Your task to perform on an android device: Go to Android settings Image 0: 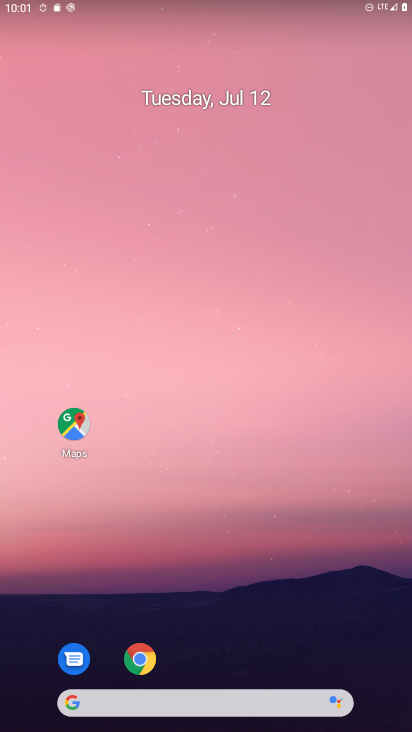
Step 0: drag from (375, 690) to (214, 46)
Your task to perform on an android device: Go to Android settings Image 1: 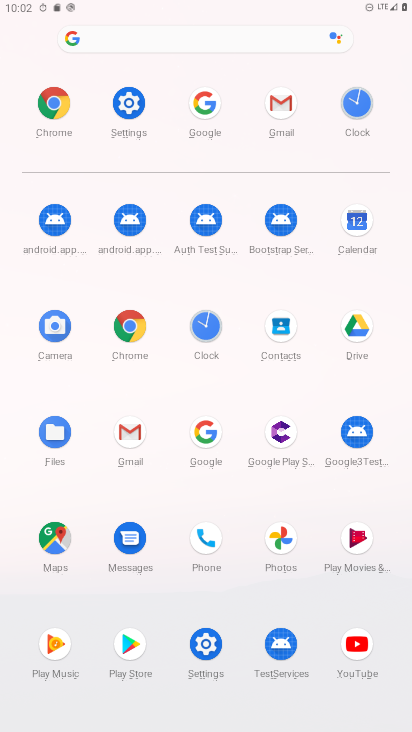
Step 1: click (204, 648)
Your task to perform on an android device: Go to Android settings Image 2: 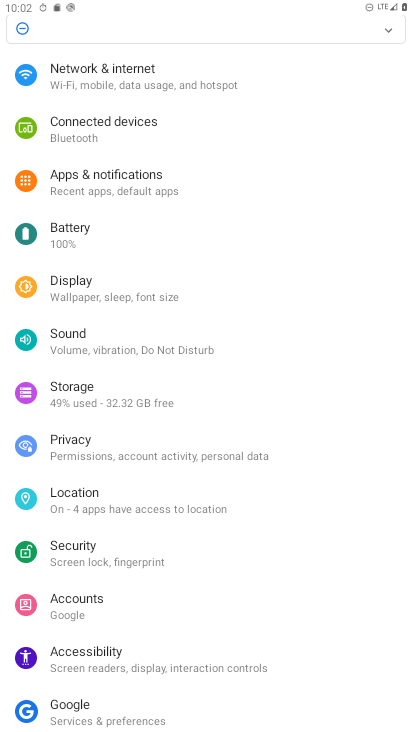
Step 2: task complete